Your task to perform on an android device: Search for sushi restaurants on Maps Image 0: 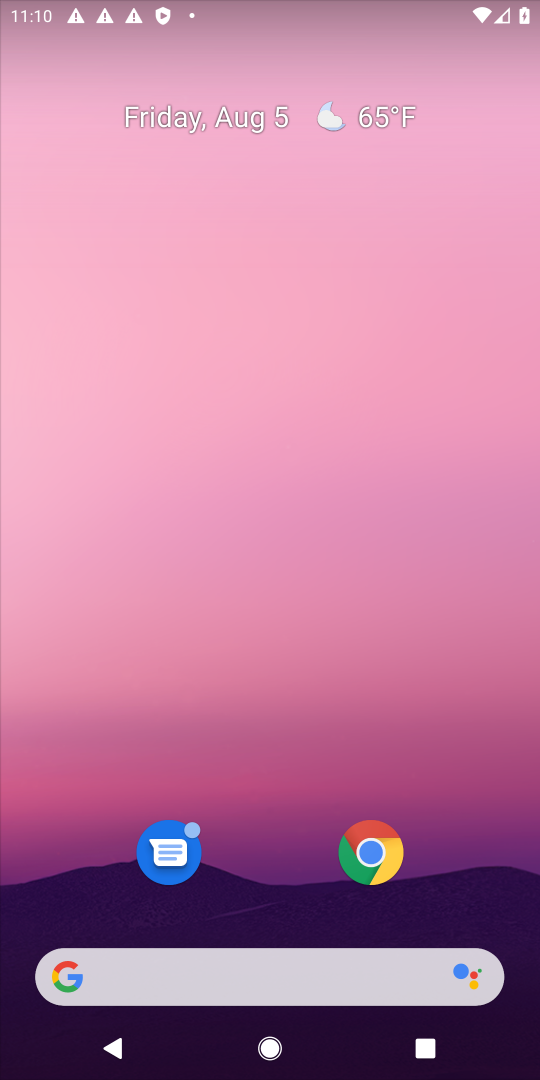
Step 0: drag from (319, 1010) to (219, 422)
Your task to perform on an android device: Search for sushi restaurants on Maps Image 1: 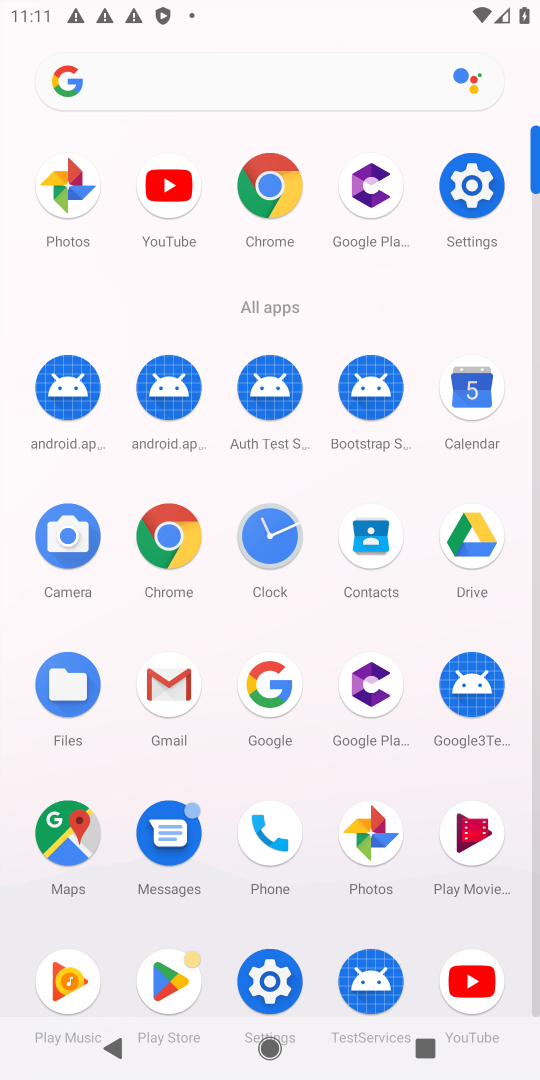
Step 1: click (58, 825)
Your task to perform on an android device: Search for sushi restaurants on Maps Image 2: 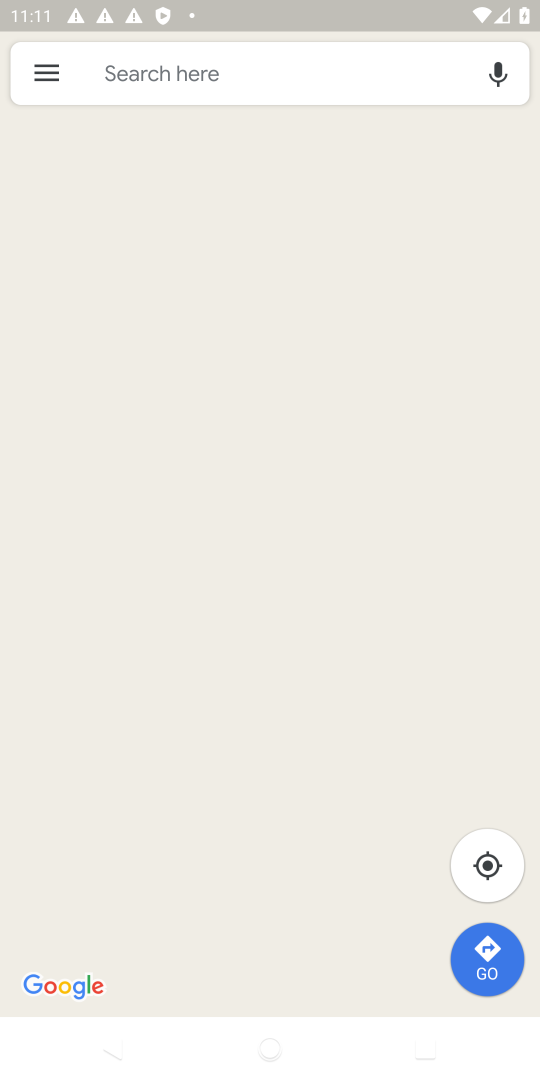
Step 2: click (176, 78)
Your task to perform on an android device: Search for sushi restaurants on Maps Image 3: 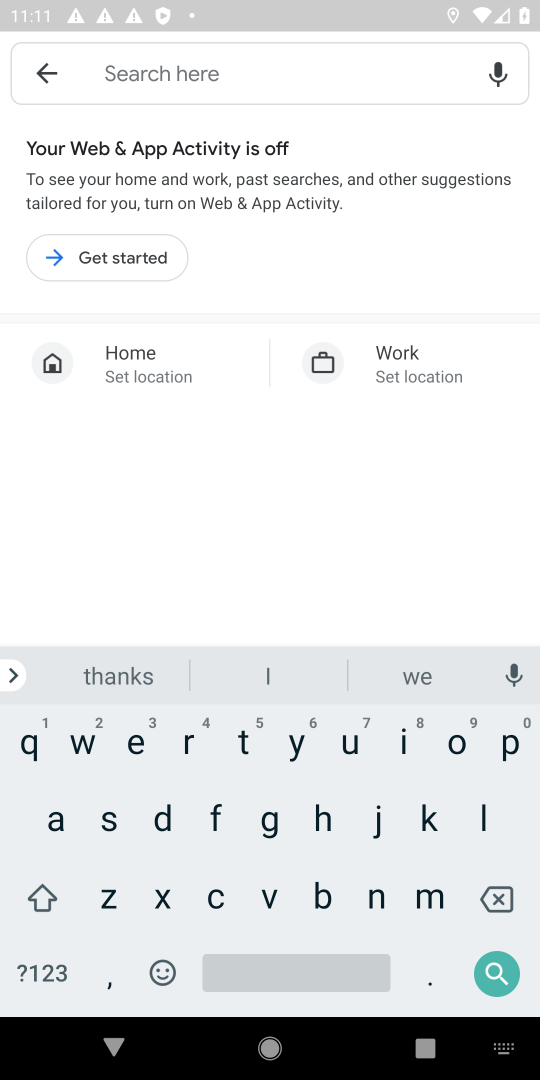
Step 3: click (100, 821)
Your task to perform on an android device: Search for sushi restaurants on Maps Image 4: 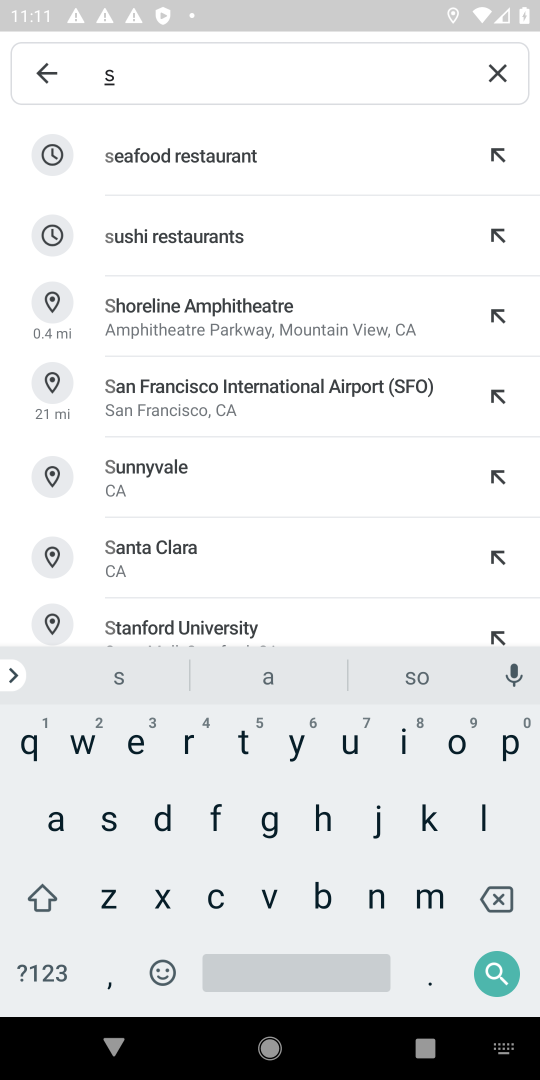
Step 4: click (212, 232)
Your task to perform on an android device: Search for sushi restaurants on Maps Image 5: 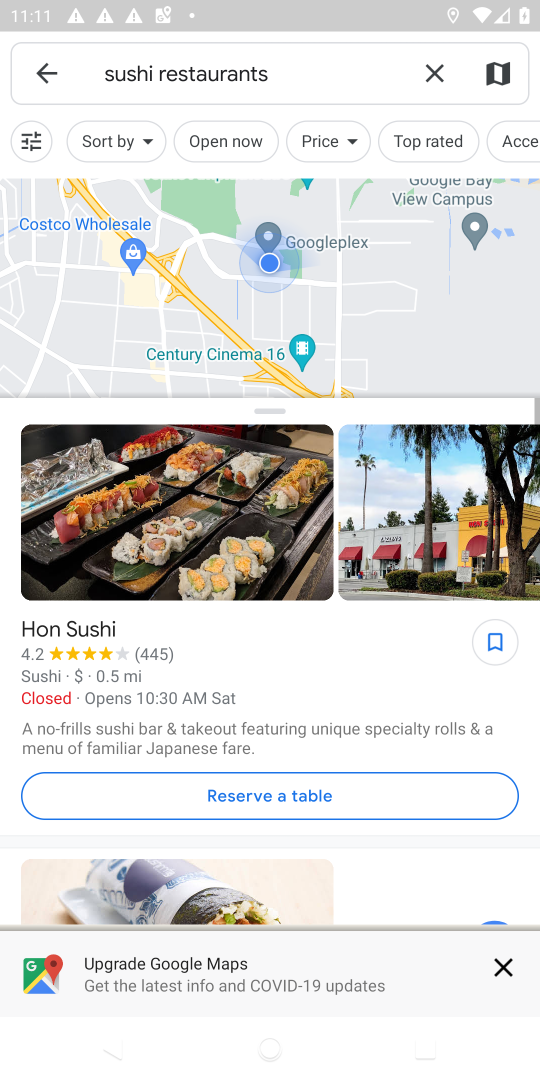
Step 5: task complete